Your task to perform on an android device: When is my next appointment? Image 0: 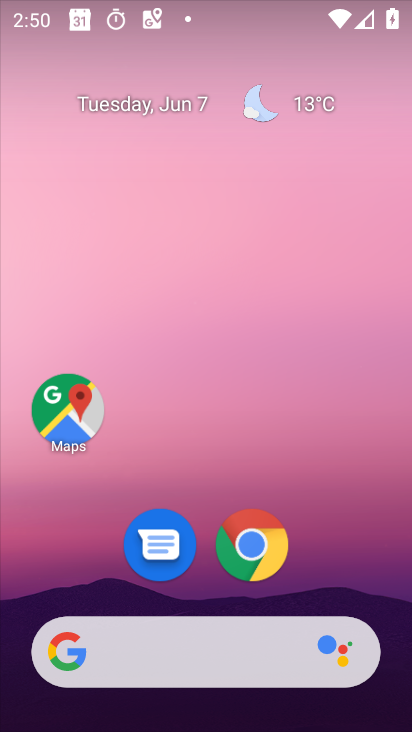
Step 0: drag from (361, 447) to (251, 19)
Your task to perform on an android device: When is my next appointment? Image 1: 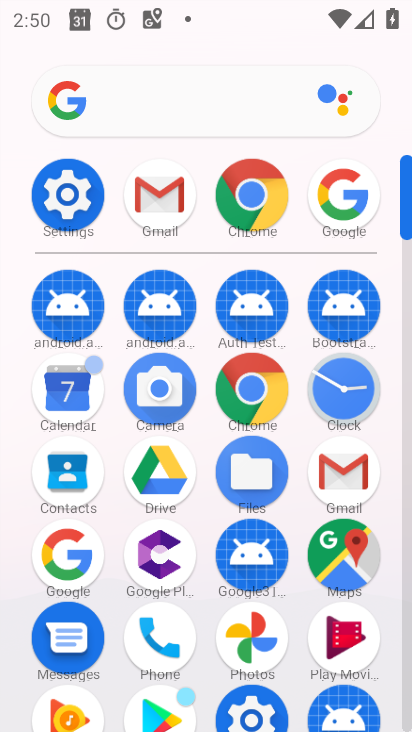
Step 1: click (71, 399)
Your task to perform on an android device: When is my next appointment? Image 2: 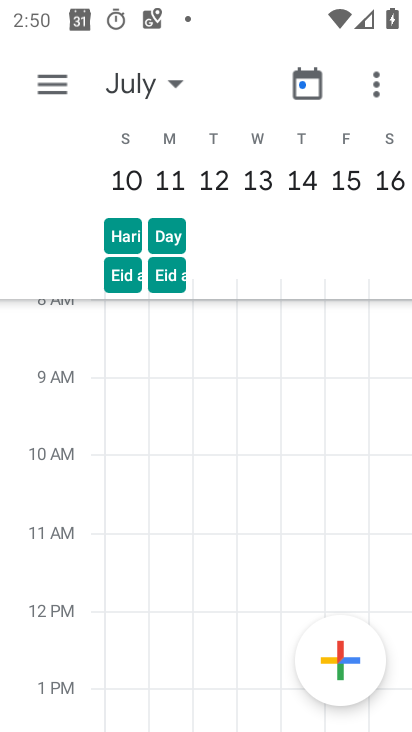
Step 2: click (160, 75)
Your task to perform on an android device: When is my next appointment? Image 3: 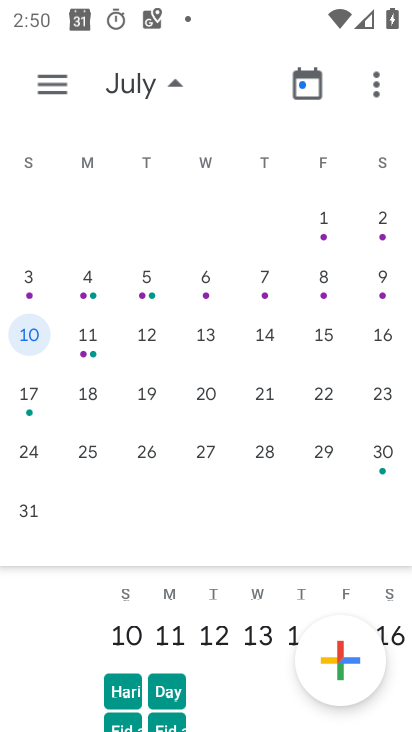
Step 3: drag from (48, 309) to (357, 193)
Your task to perform on an android device: When is my next appointment? Image 4: 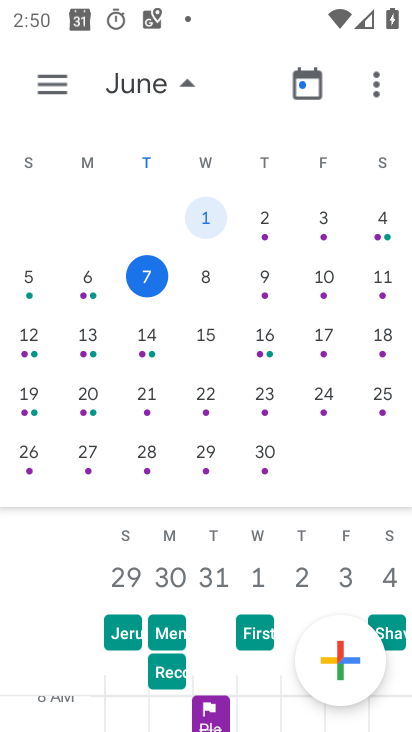
Step 4: click (30, 273)
Your task to perform on an android device: When is my next appointment? Image 5: 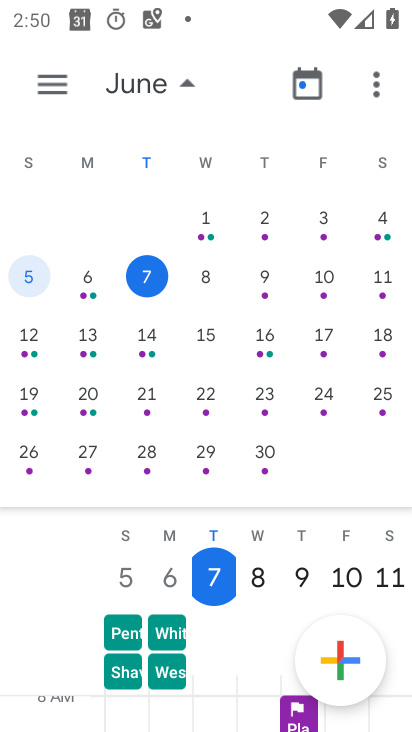
Step 5: task complete